Your task to perform on an android device: Open calendar and show me the first week of next month Image 0: 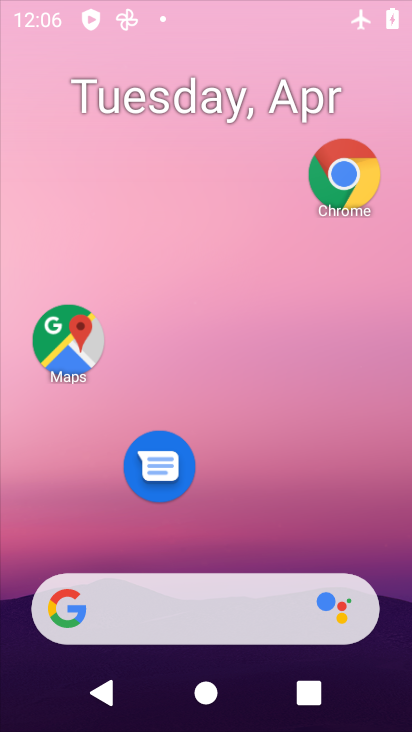
Step 0: click (71, 87)
Your task to perform on an android device: Open calendar and show me the first week of next month Image 1: 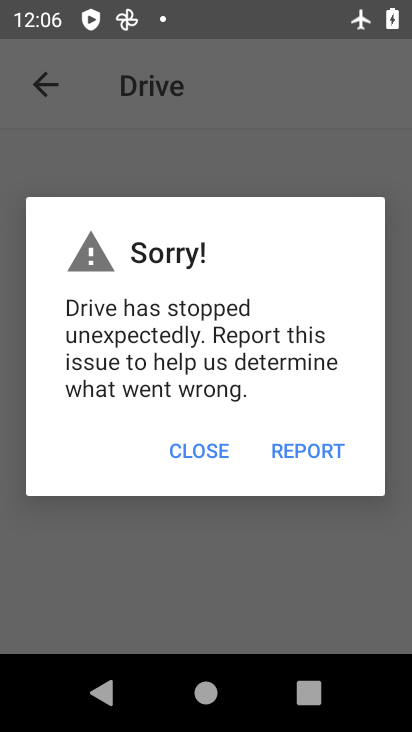
Step 1: click (78, 102)
Your task to perform on an android device: Open calendar and show me the first week of next month Image 2: 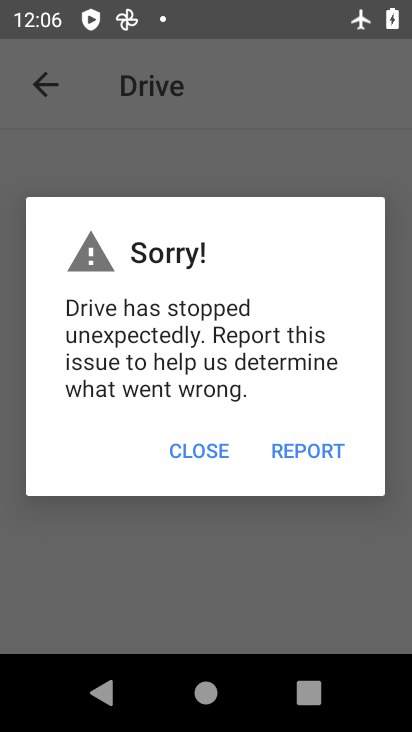
Step 2: click (80, 101)
Your task to perform on an android device: Open calendar and show me the first week of next month Image 3: 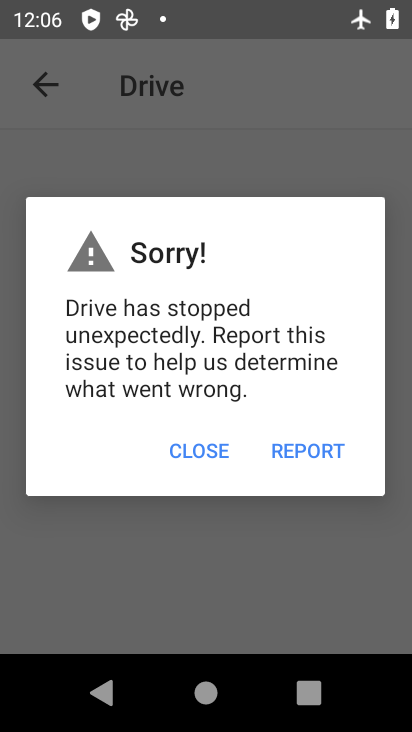
Step 3: press home button
Your task to perform on an android device: Open calendar and show me the first week of next month Image 4: 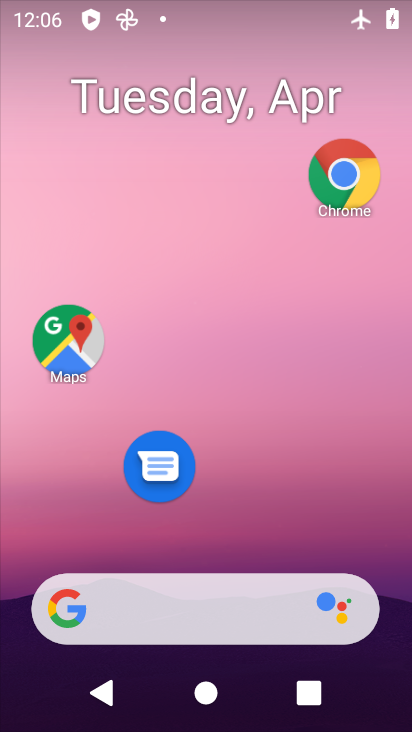
Step 4: drag from (313, 534) to (310, 4)
Your task to perform on an android device: Open calendar and show me the first week of next month Image 5: 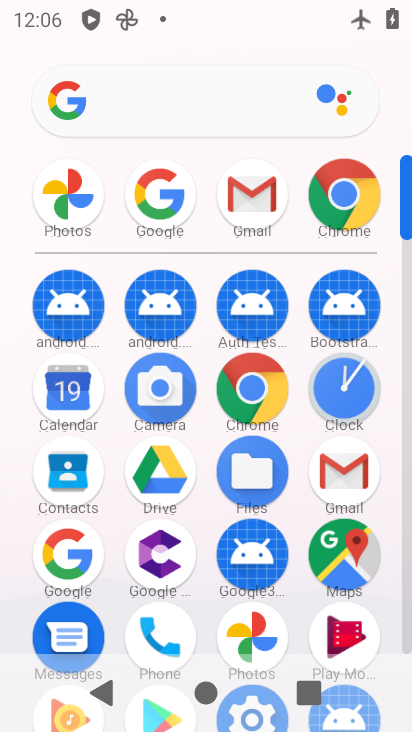
Step 5: drag from (244, 396) to (280, 152)
Your task to perform on an android device: Open calendar and show me the first week of next month Image 6: 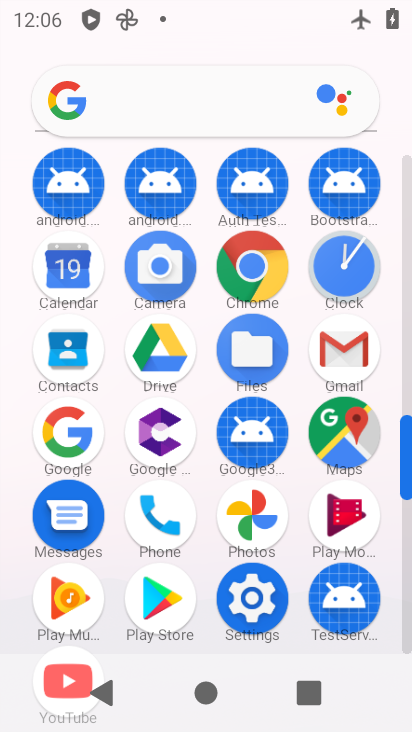
Step 6: click (73, 277)
Your task to perform on an android device: Open calendar and show me the first week of next month Image 7: 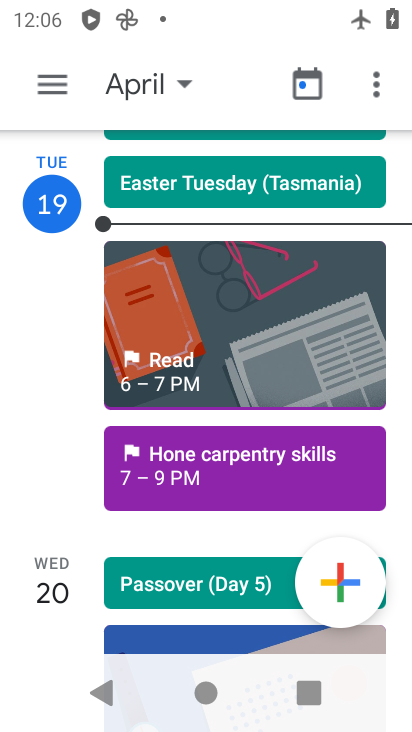
Step 7: click (190, 87)
Your task to perform on an android device: Open calendar and show me the first week of next month Image 8: 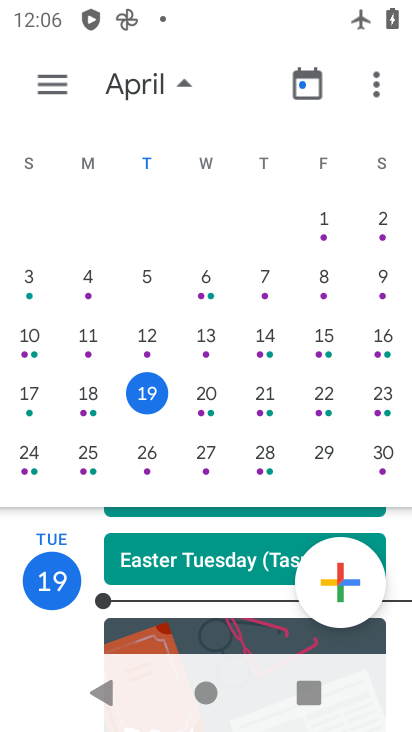
Step 8: task complete